Your task to perform on an android device: open app "Facebook Lite" Image 0: 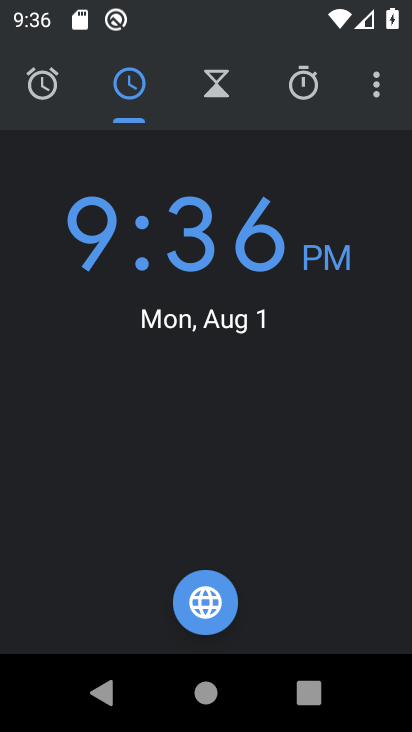
Step 0: press home button
Your task to perform on an android device: open app "Facebook Lite" Image 1: 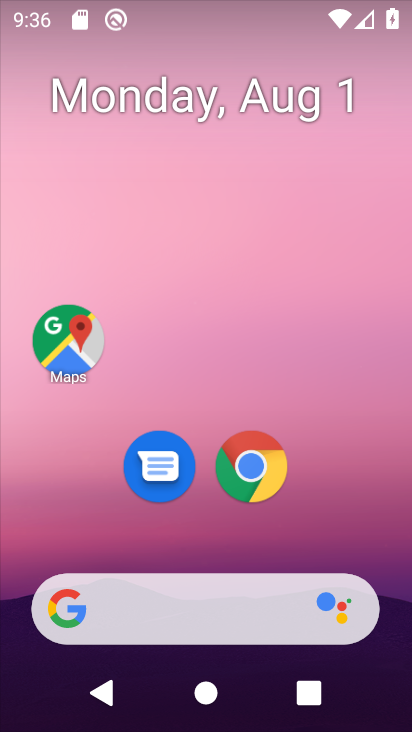
Step 1: drag from (232, 712) to (232, 139)
Your task to perform on an android device: open app "Facebook Lite" Image 2: 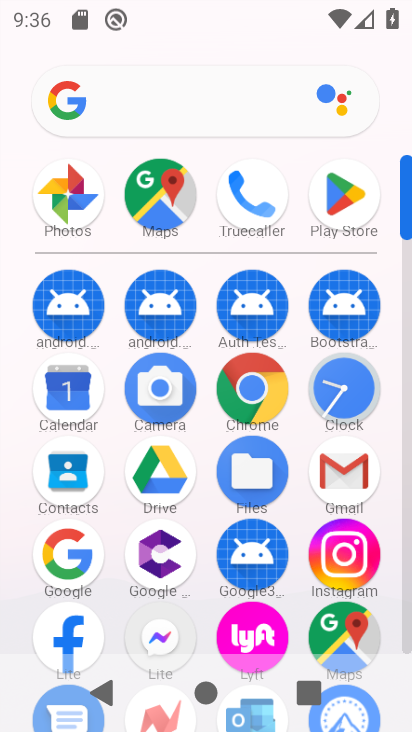
Step 2: click (80, 619)
Your task to perform on an android device: open app "Facebook Lite" Image 3: 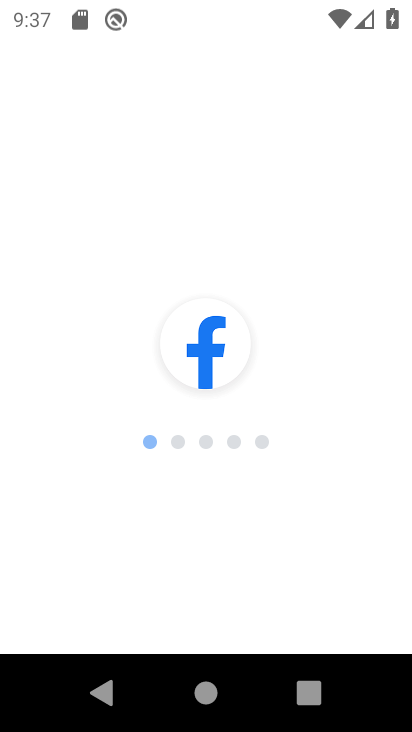
Step 3: task complete